Your task to perform on an android device: turn on notifications settings in the gmail app Image 0: 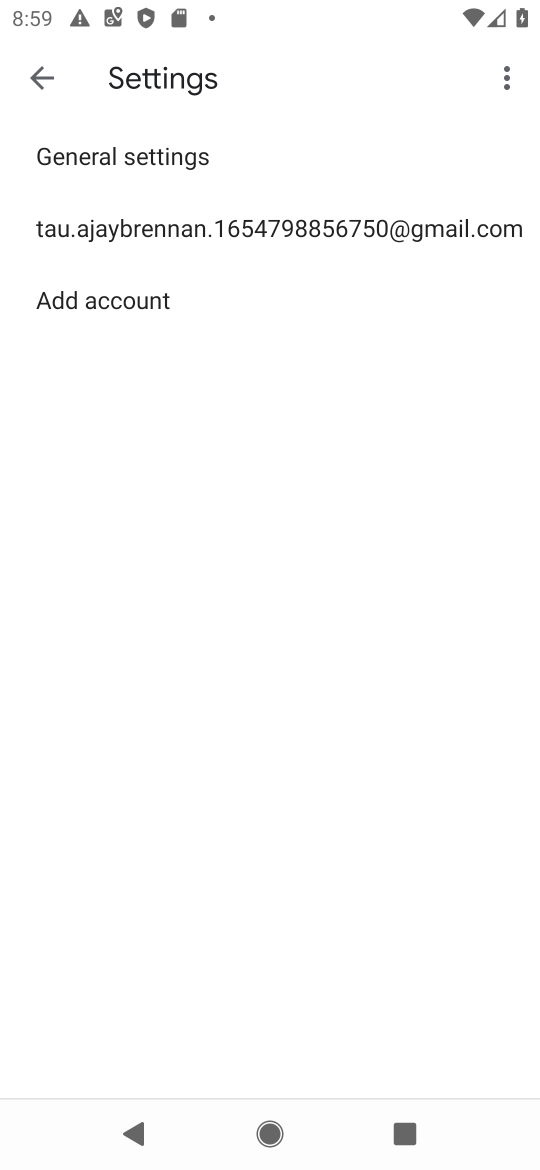
Step 0: press home button
Your task to perform on an android device: turn on notifications settings in the gmail app Image 1: 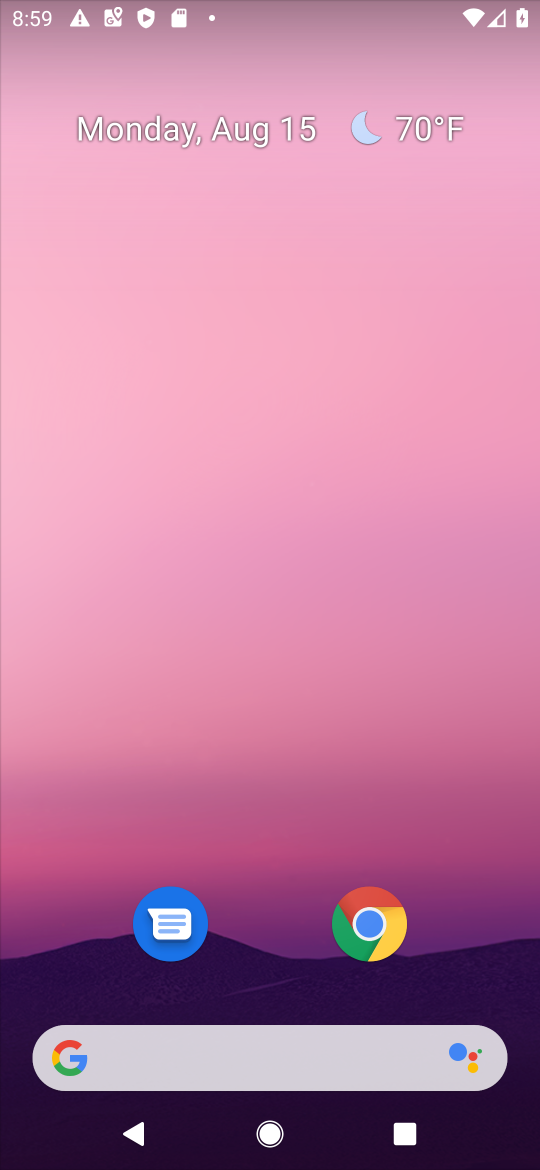
Step 1: drag from (517, 995) to (463, 191)
Your task to perform on an android device: turn on notifications settings in the gmail app Image 2: 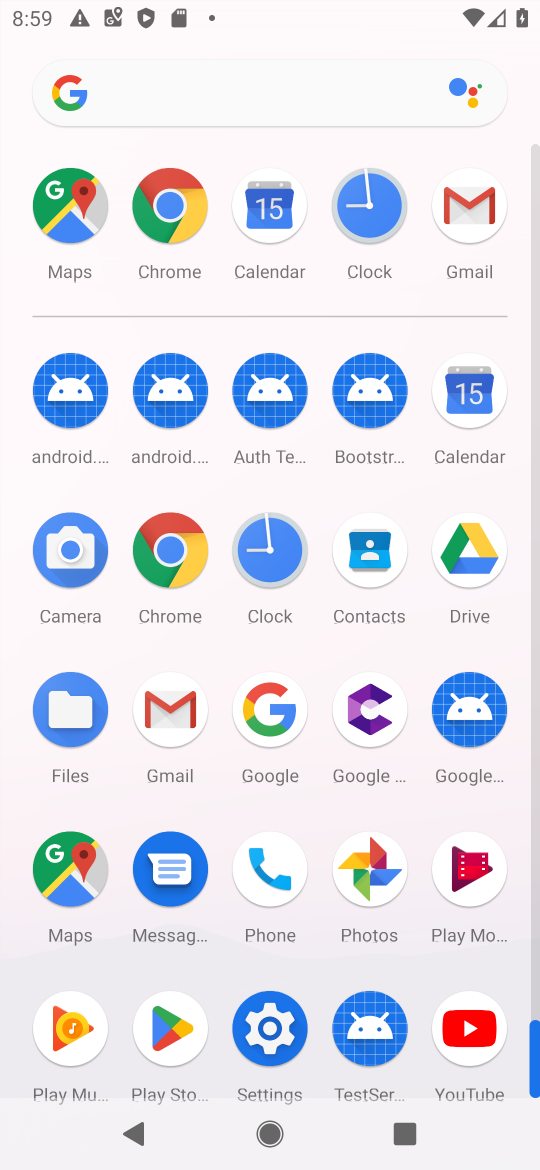
Step 2: click (164, 710)
Your task to perform on an android device: turn on notifications settings in the gmail app Image 3: 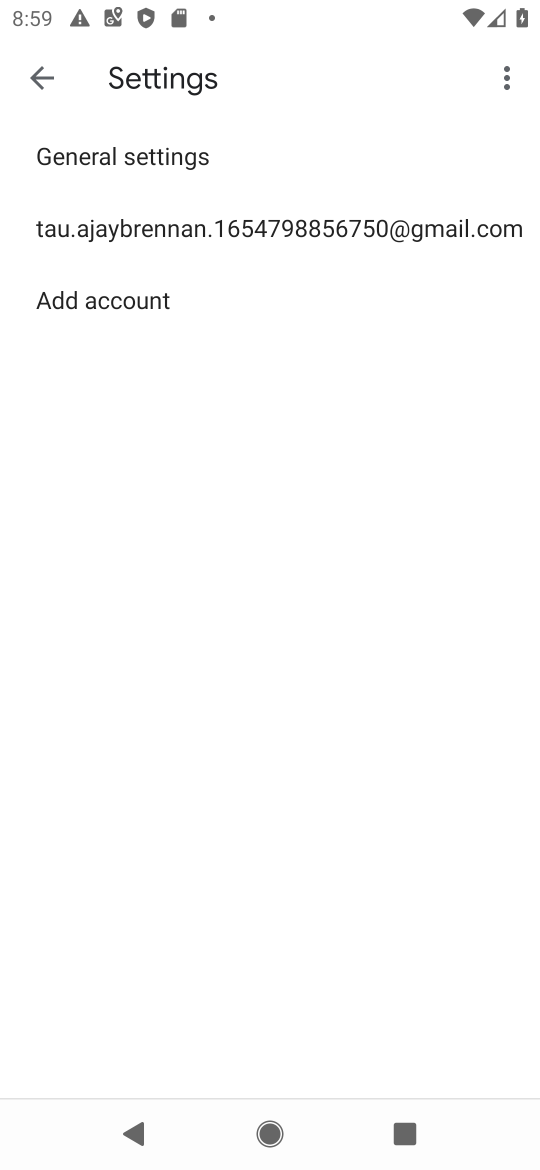
Step 3: click (218, 216)
Your task to perform on an android device: turn on notifications settings in the gmail app Image 4: 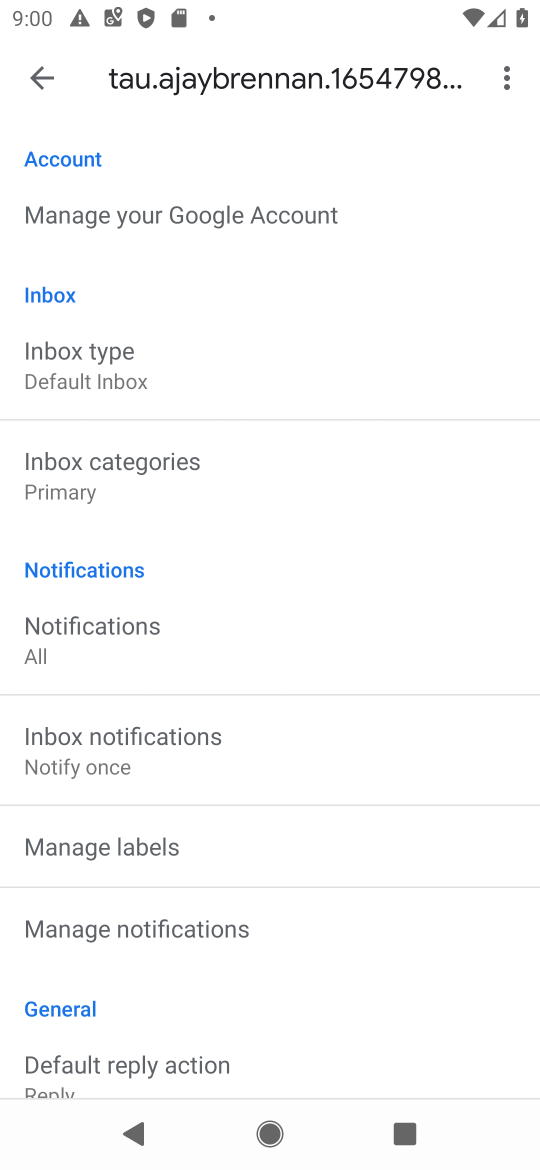
Step 4: click (168, 934)
Your task to perform on an android device: turn on notifications settings in the gmail app Image 5: 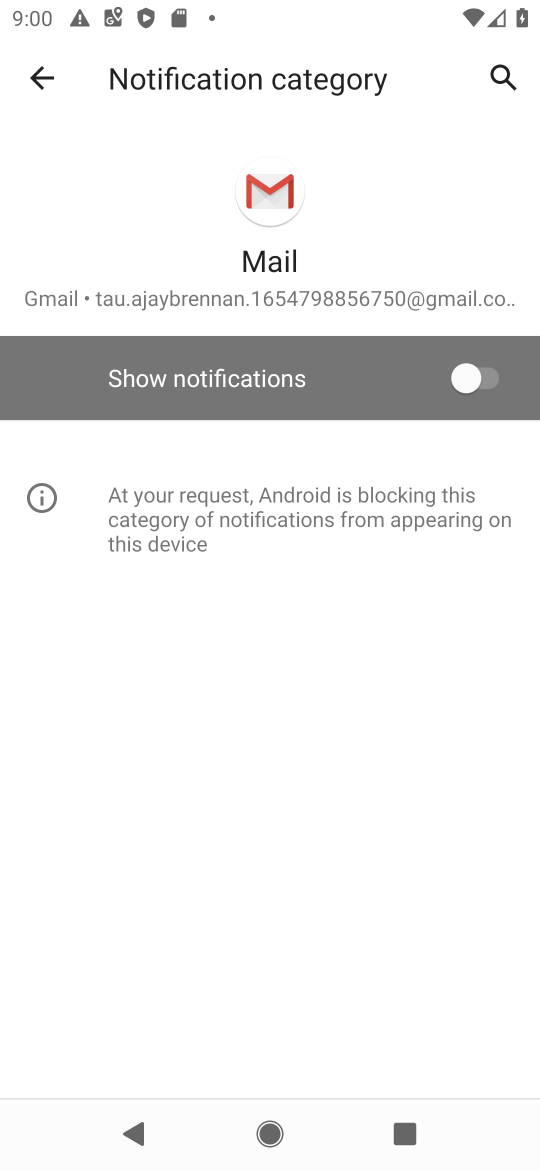
Step 5: click (496, 375)
Your task to perform on an android device: turn on notifications settings in the gmail app Image 6: 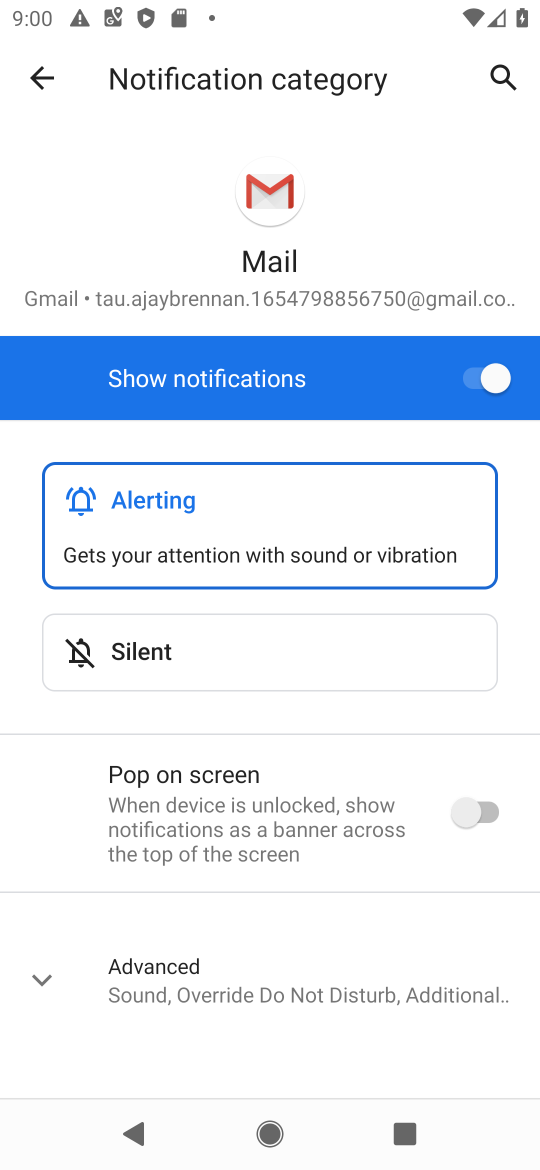
Step 6: task complete